Your task to perform on an android device: Go to settings Image 0: 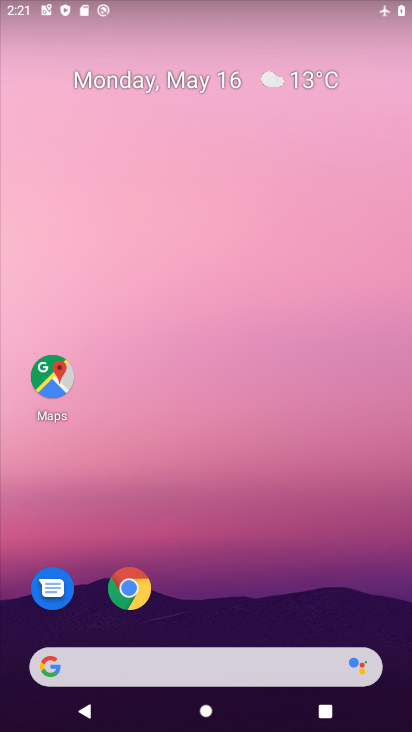
Step 0: drag from (319, 670) to (302, 37)
Your task to perform on an android device: Go to settings Image 1: 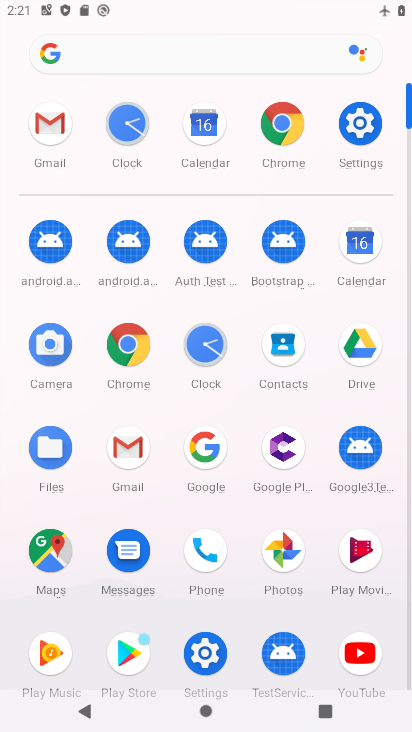
Step 1: click (369, 127)
Your task to perform on an android device: Go to settings Image 2: 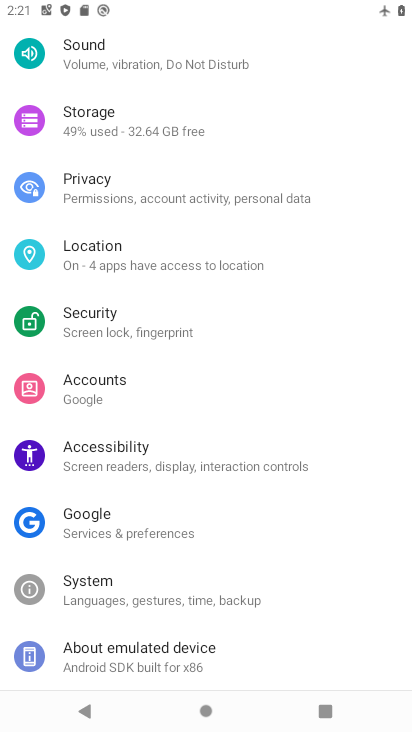
Step 2: task complete